Your task to perform on an android device: open chrome privacy settings Image 0: 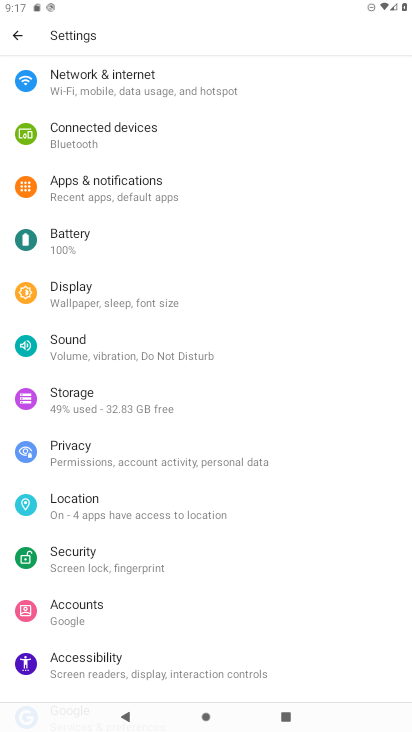
Step 0: press home button
Your task to perform on an android device: open chrome privacy settings Image 1: 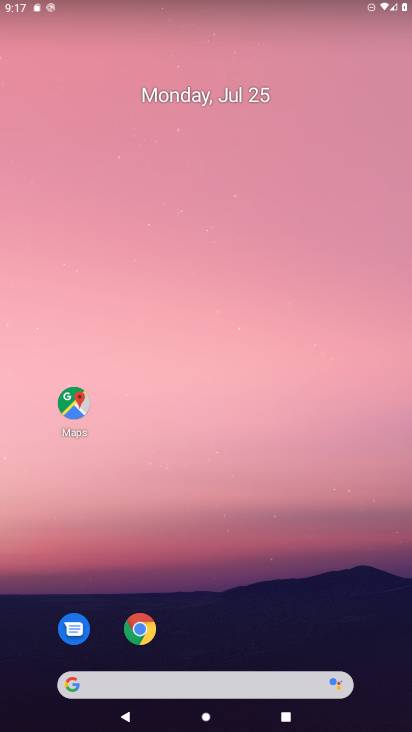
Step 1: drag from (216, 628) to (228, 675)
Your task to perform on an android device: open chrome privacy settings Image 2: 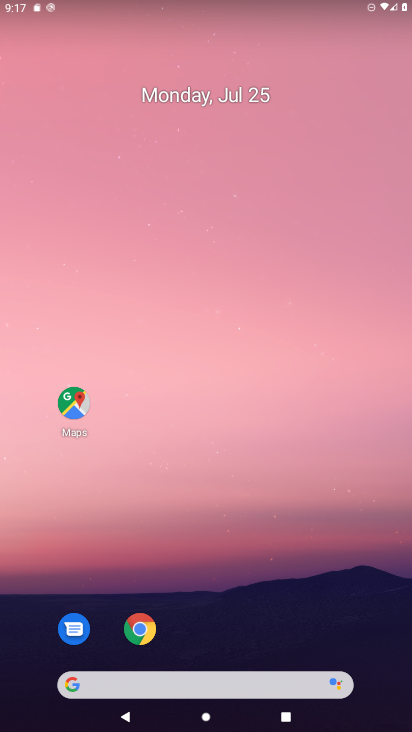
Step 2: click (143, 626)
Your task to perform on an android device: open chrome privacy settings Image 3: 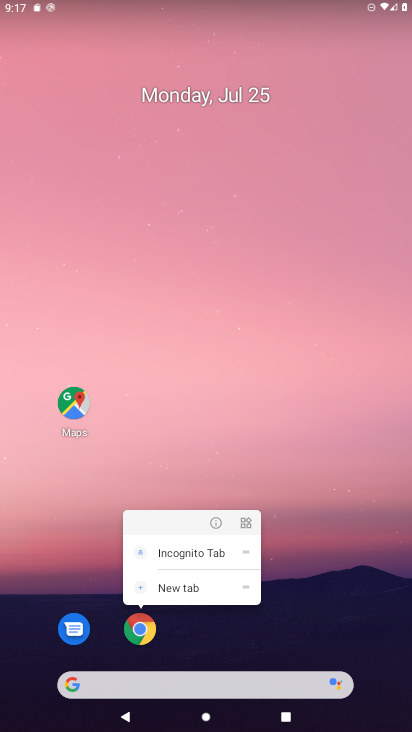
Step 3: click (140, 636)
Your task to perform on an android device: open chrome privacy settings Image 4: 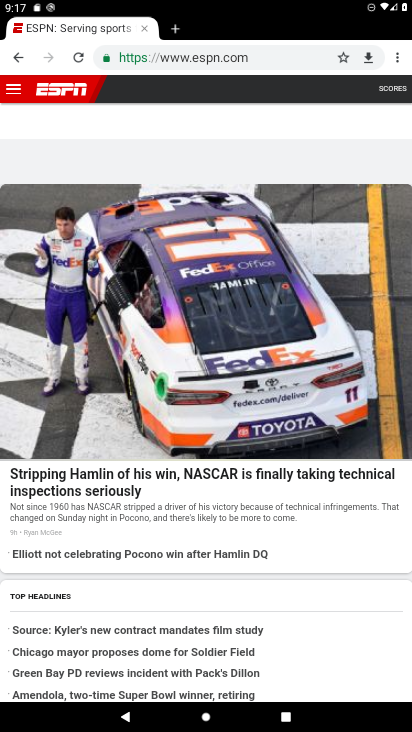
Step 4: drag from (401, 56) to (285, 386)
Your task to perform on an android device: open chrome privacy settings Image 5: 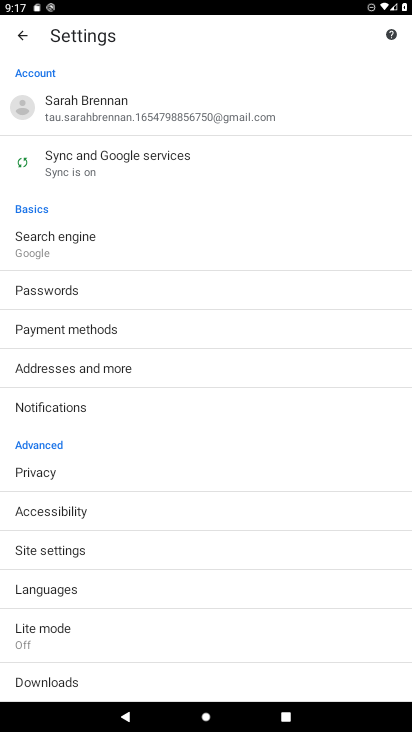
Step 5: click (45, 474)
Your task to perform on an android device: open chrome privacy settings Image 6: 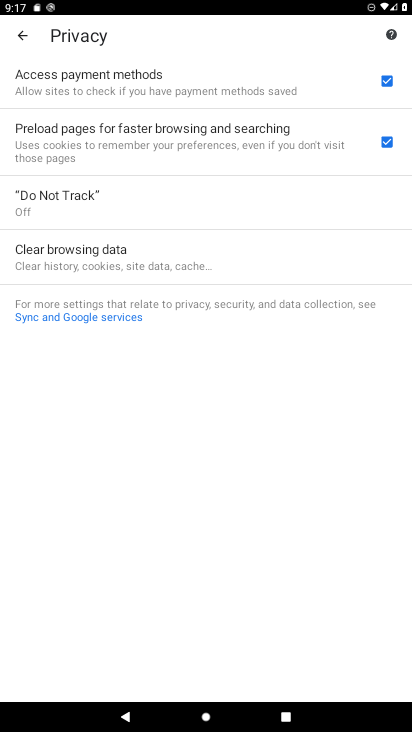
Step 6: task complete